Your task to perform on an android device: set the timer Image 0: 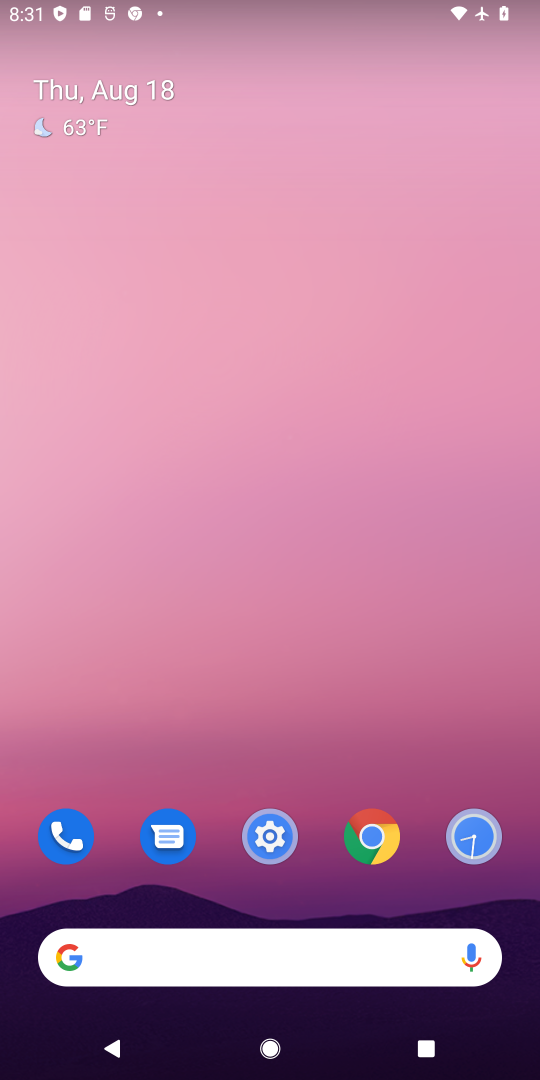
Step 0: drag from (399, 739) to (405, 0)
Your task to perform on an android device: set the timer Image 1: 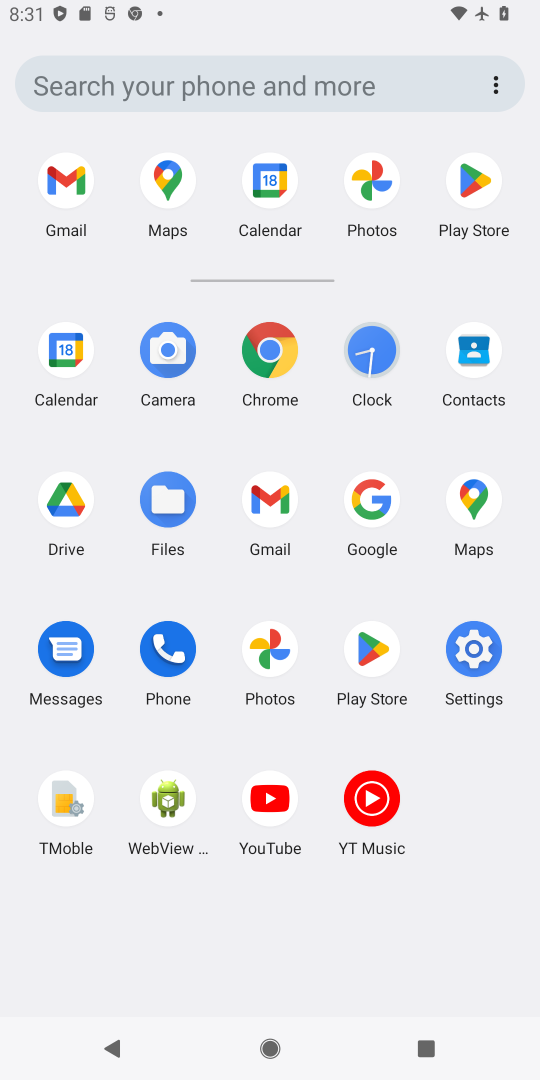
Step 1: click (397, 346)
Your task to perform on an android device: set the timer Image 2: 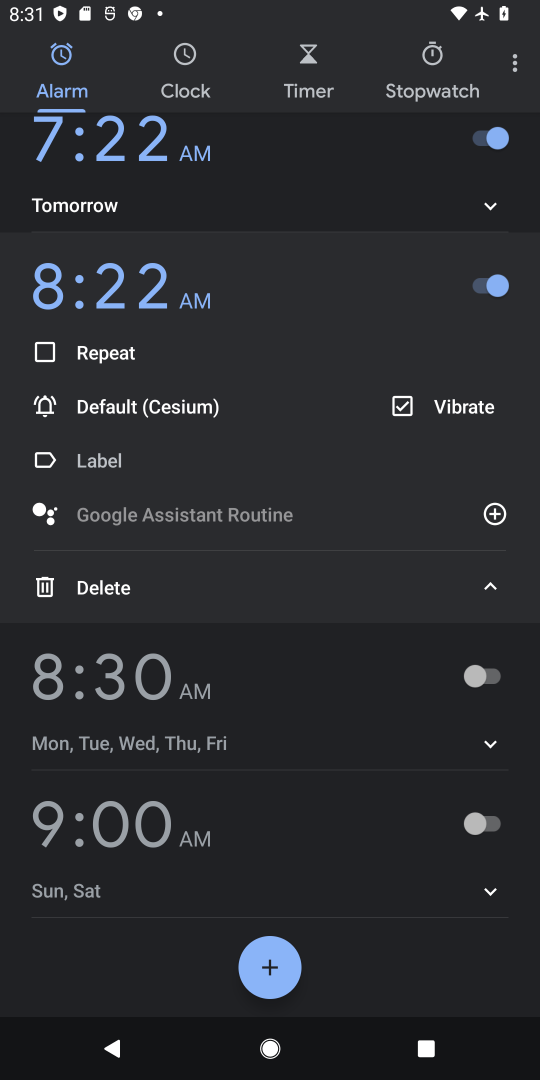
Step 2: click (329, 63)
Your task to perform on an android device: set the timer Image 3: 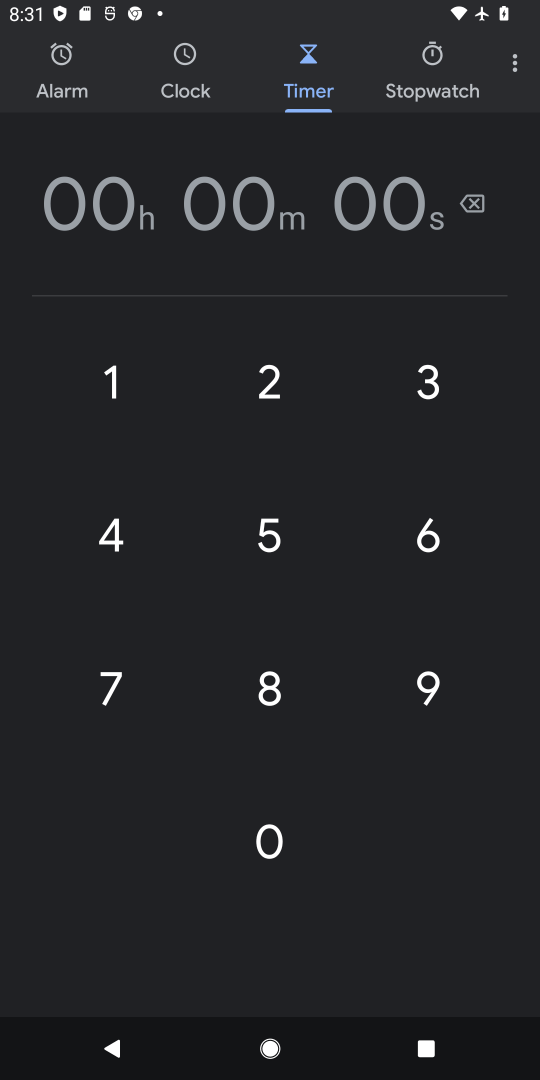
Step 3: click (276, 525)
Your task to perform on an android device: set the timer Image 4: 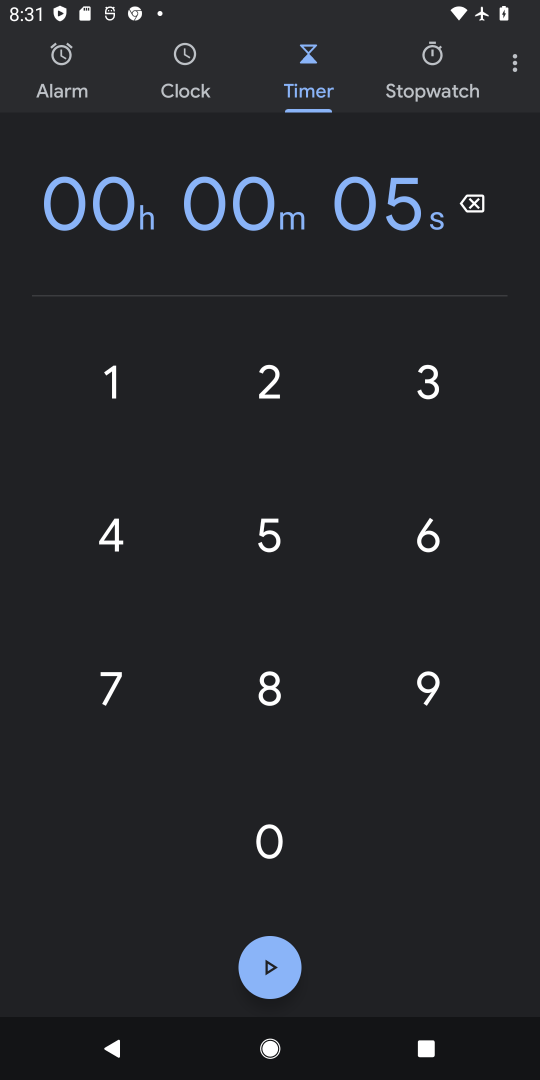
Step 4: task complete